Your task to perform on an android device: star an email in the gmail app Image 0: 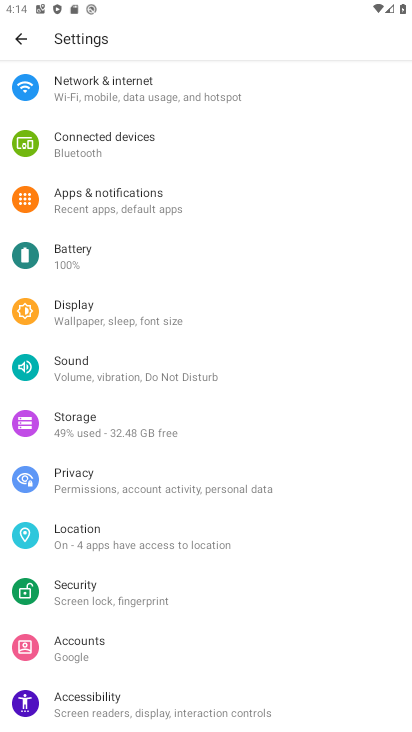
Step 0: press home button
Your task to perform on an android device: star an email in the gmail app Image 1: 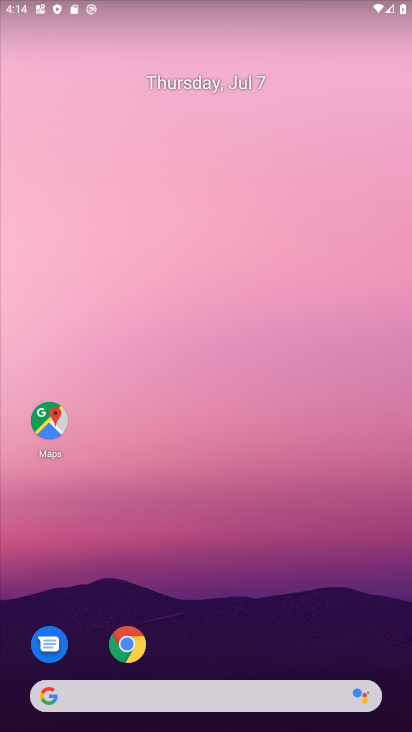
Step 1: drag from (192, 591) to (189, 280)
Your task to perform on an android device: star an email in the gmail app Image 2: 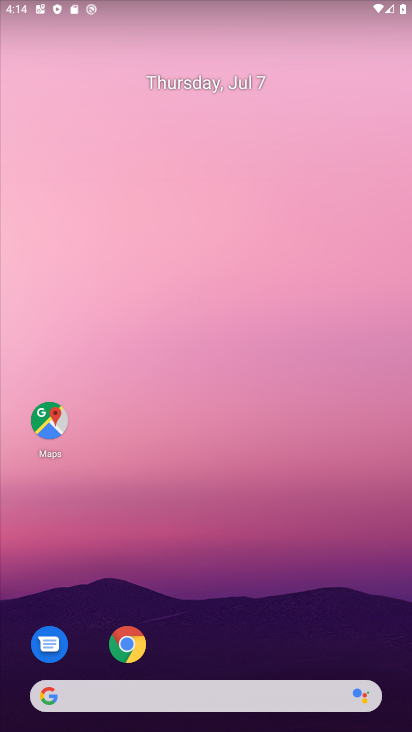
Step 2: drag from (183, 628) to (208, 254)
Your task to perform on an android device: star an email in the gmail app Image 3: 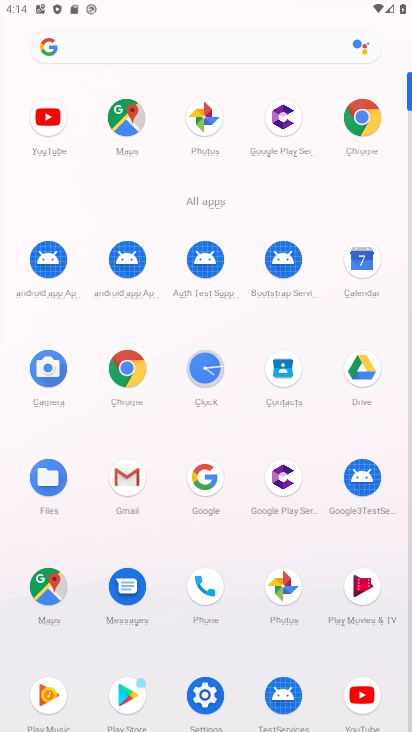
Step 3: click (121, 477)
Your task to perform on an android device: star an email in the gmail app Image 4: 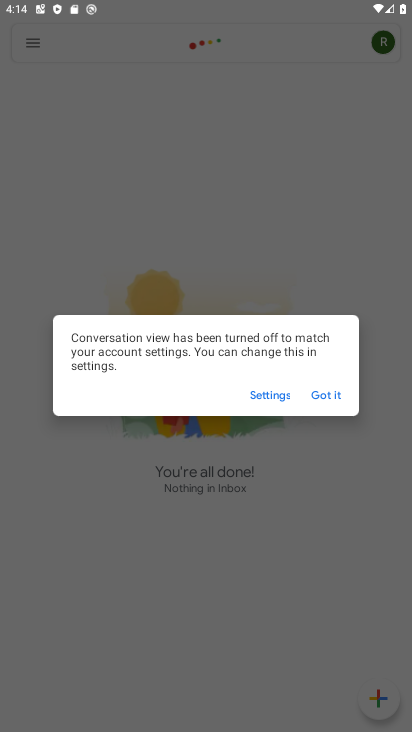
Step 4: click (319, 388)
Your task to perform on an android device: star an email in the gmail app Image 5: 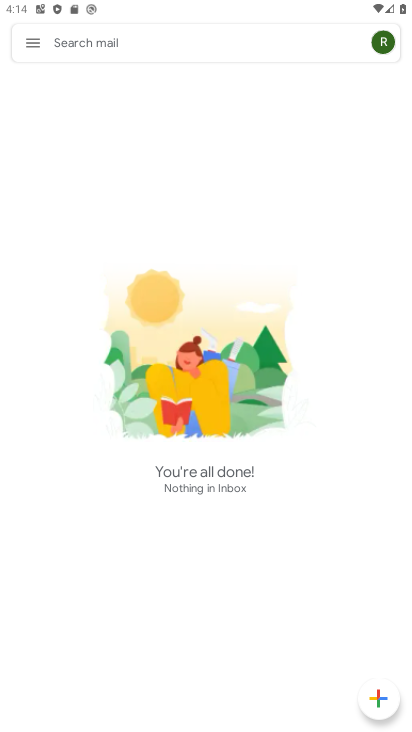
Step 5: task complete